Your task to perform on an android device: turn on airplane mode Image 0: 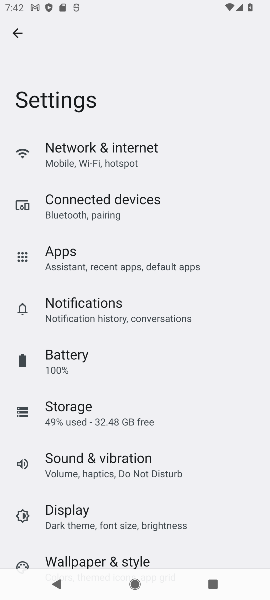
Step 0: click (138, 163)
Your task to perform on an android device: turn on airplane mode Image 1: 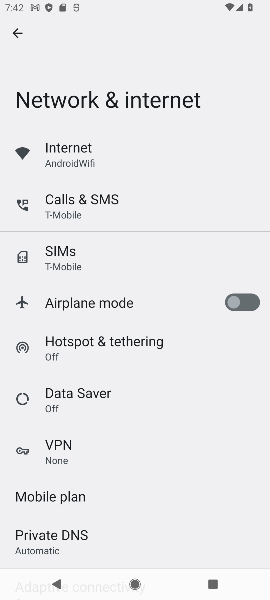
Step 1: click (243, 299)
Your task to perform on an android device: turn on airplane mode Image 2: 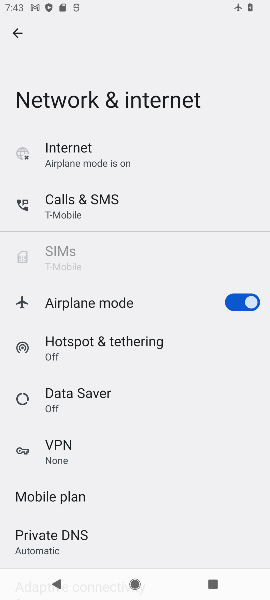
Step 2: task complete